Your task to perform on an android device: Do I have any events today? Image 0: 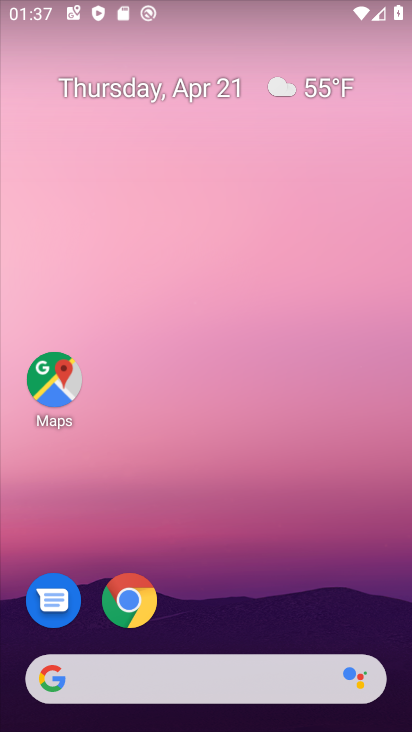
Step 0: drag from (264, 569) to (272, 123)
Your task to perform on an android device: Do I have any events today? Image 1: 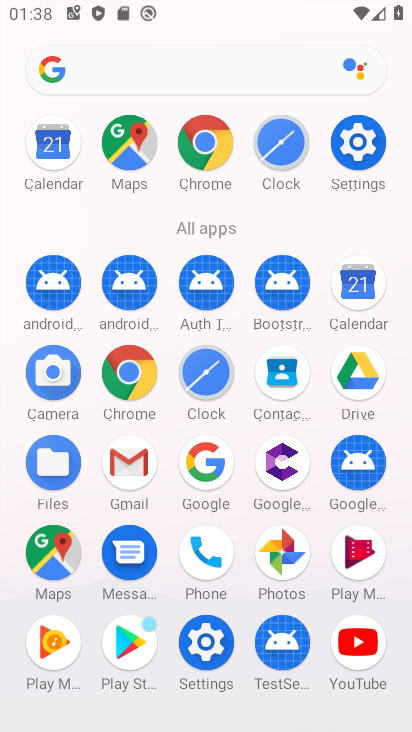
Step 1: click (353, 294)
Your task to perform on an android device: Do I have any events today? Image 2: 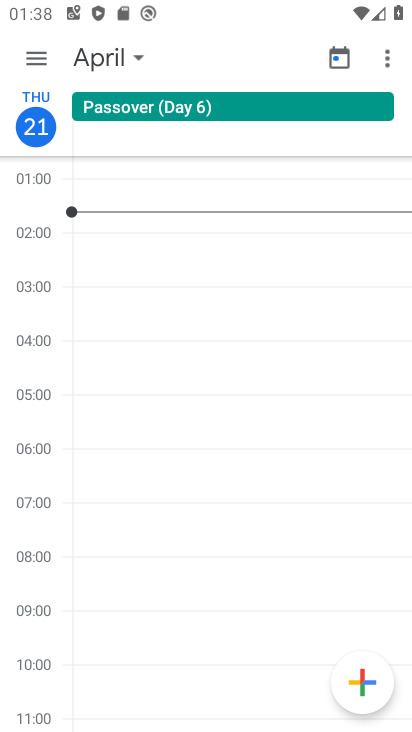
Step 2: click (104, 61)
Your task to perform on an android device: Do I have any events today? Image 3: 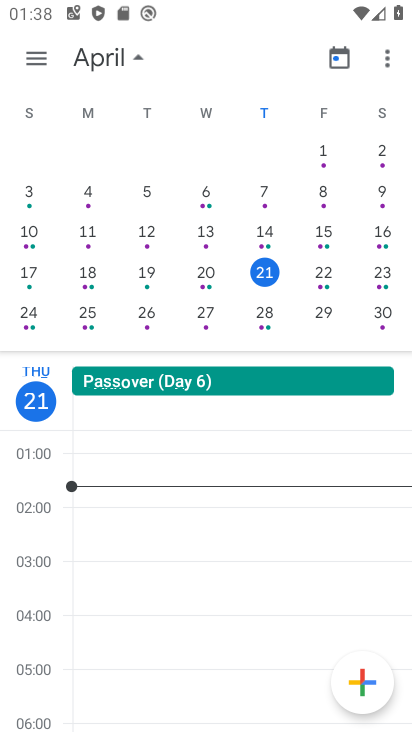
Step 3: click (273, 269)
Your task to perform on an android device: Do I have any events today? Image 4: 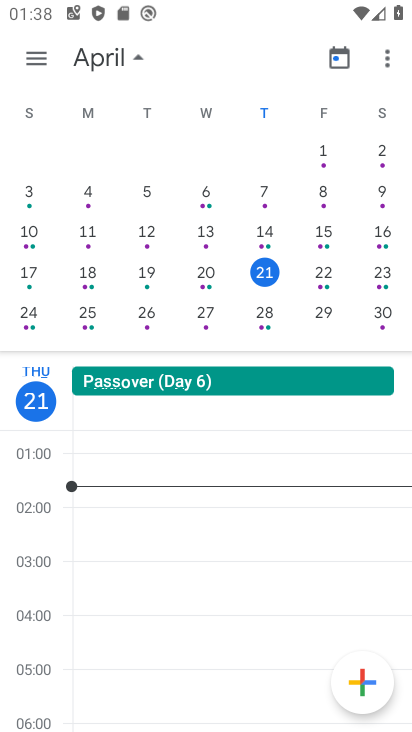
Step 4: task complete